Your task to perform on an android device: turn on data saver in the chrome app Image 0: 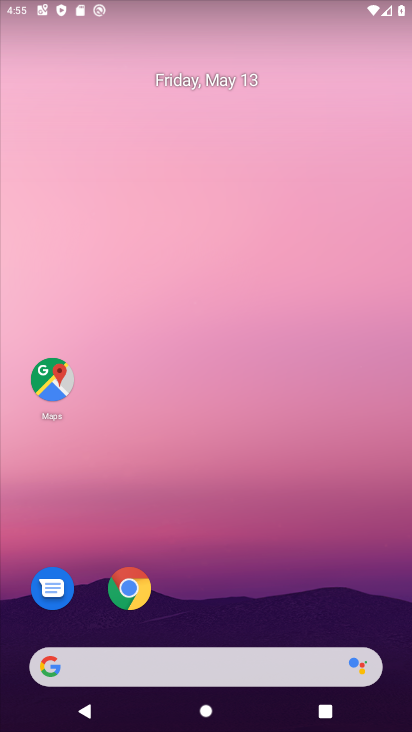
Step 0: click (119, 596)
Your task to perform on an android device: turn on data saver in the chrome app Image 1: 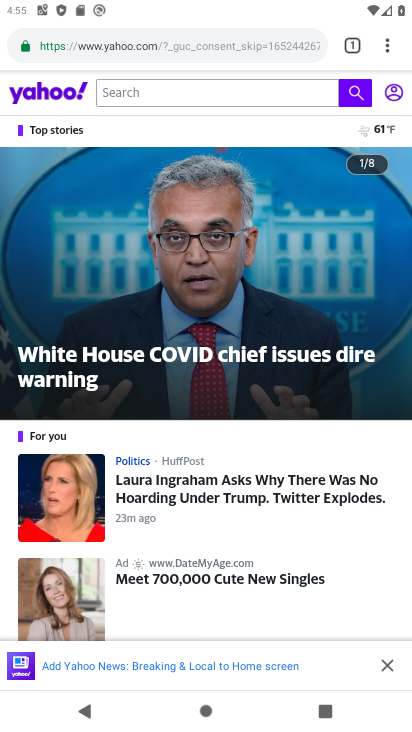
Step 1: drag from (385, 45) to (266, 547)
Your task to perform on an android device: turn on data saver in the chrome app Image 2: 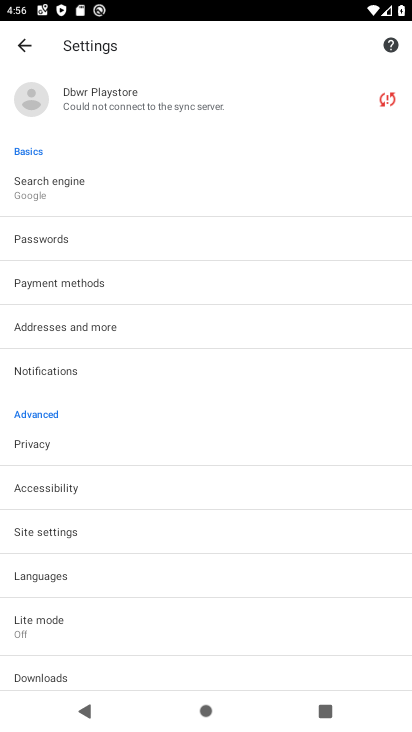
Step 2: drag from (119, 642) to (141, 548)
Your task to perform on an android device: turn on data saver in the chrome app Image 3: 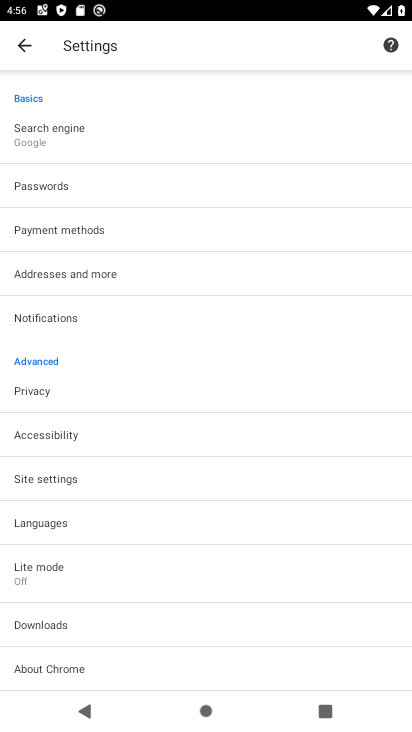
Step 3: click (67, 576)
Your task to perform on an android device: turn on data saver in the chrome app Image 4: 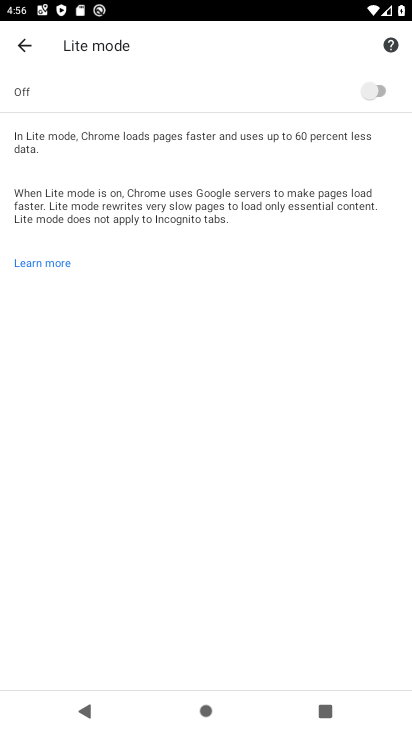
Step 4: click (395, 86)
Your task to perform on an android device: turn on data saver in the chrome app Image 5: 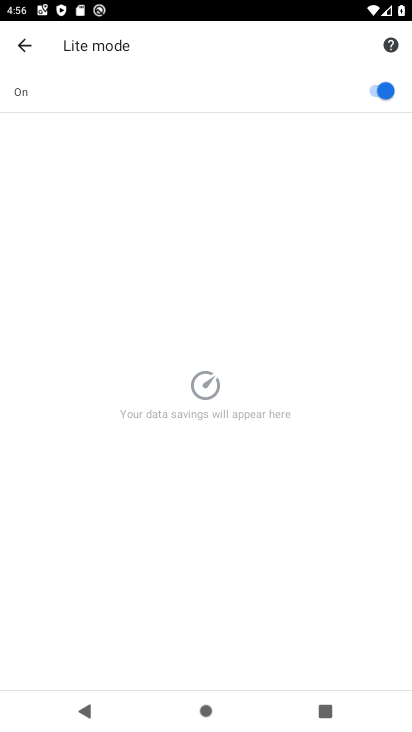
Step 5: task complete